Your task to perform on an android device: Open settings Image 0: 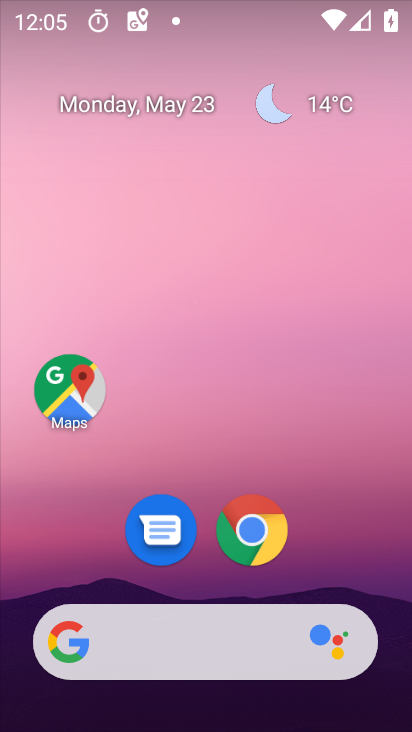
Step 0: drag from (395, 687) to (288, 183)
Your task to perform on an android device: Open settings Image 1: 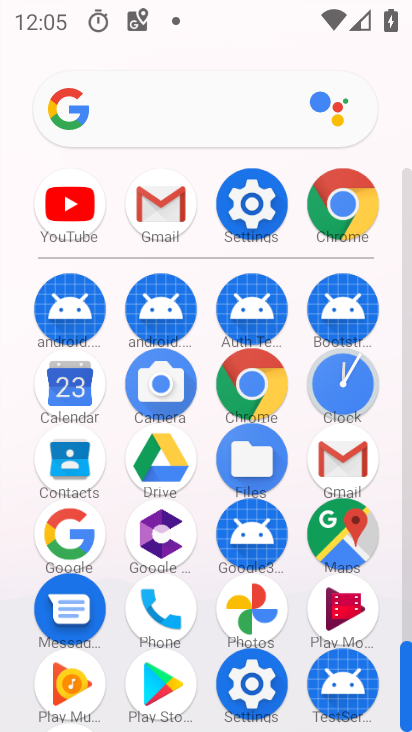
Step 1: click (252, 243)
Your task to perform on an android device: Open settings Image 2: 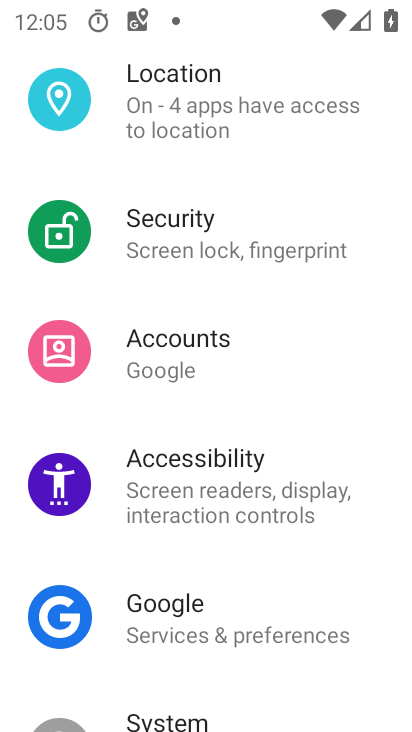
Step 2: task complete